Your task to perform on an android device: turn smart compose on in the gmail app Image 0: 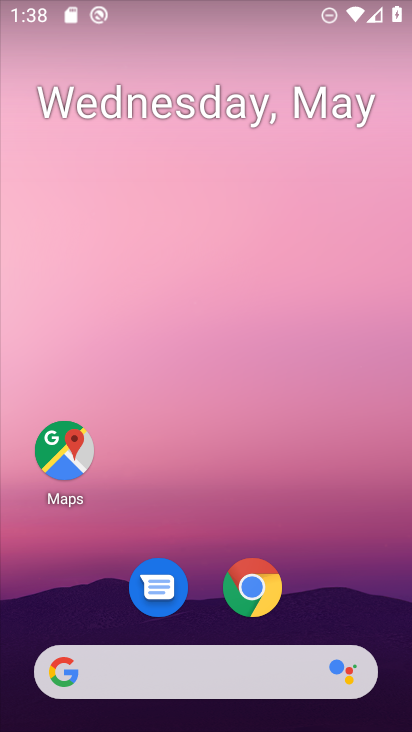
Step 0: drag from (344, 612) to (294, 348)
Your task to perform on an android device: turn smart compose on in the gmail app Image 1: 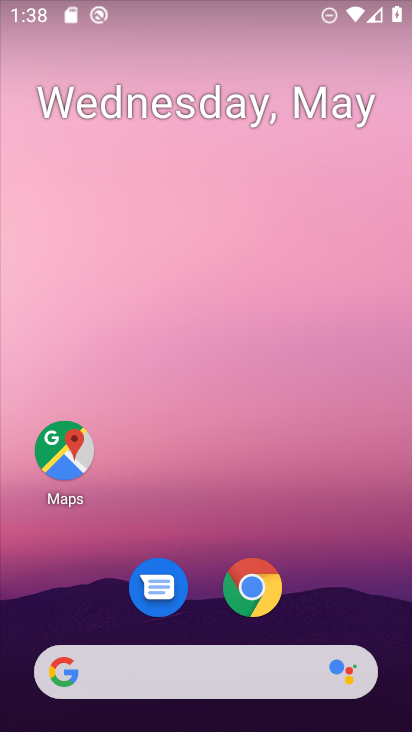
Step 1: drag from (314, 607) to (260, 316)
Your task to perform on an android device: turn smart compose on in the gmail app Image 2: 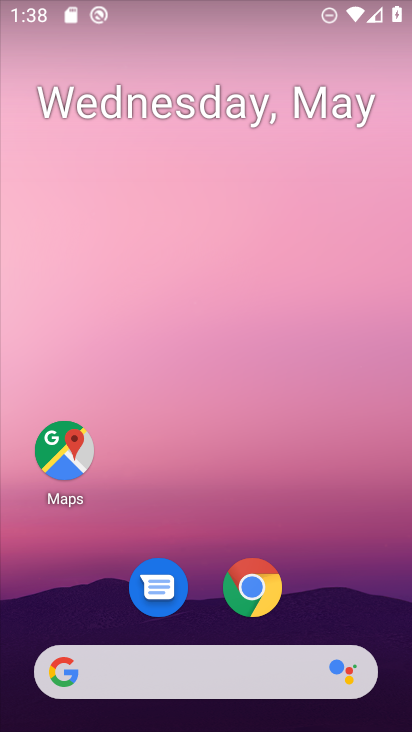
Step 2: drag from (329, 591) to (266, 233)
Your task to perform on an android device: turn smart compose on in the gmail app Image 3: 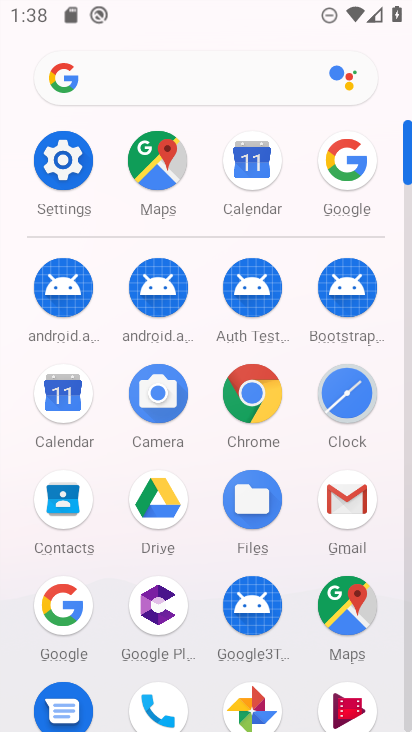
Step 3: click (343, 533)
Your task to perform on an android device: turn smart compose on in the gmail app Image 4: 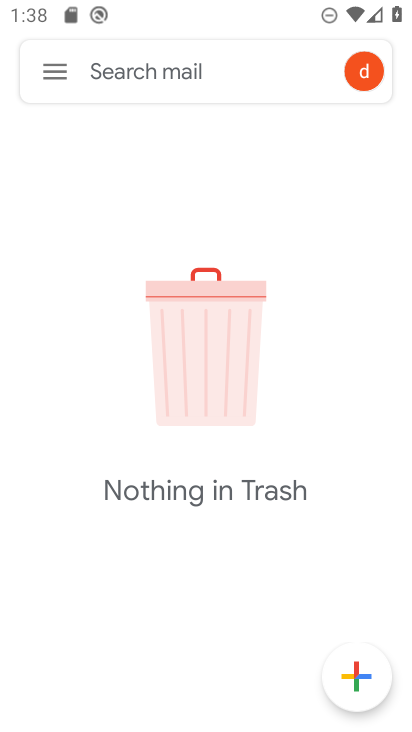
Step 4: click (49, 69)
Your task to perform on an android device: turn smart compose on in the gmail app Image 5: 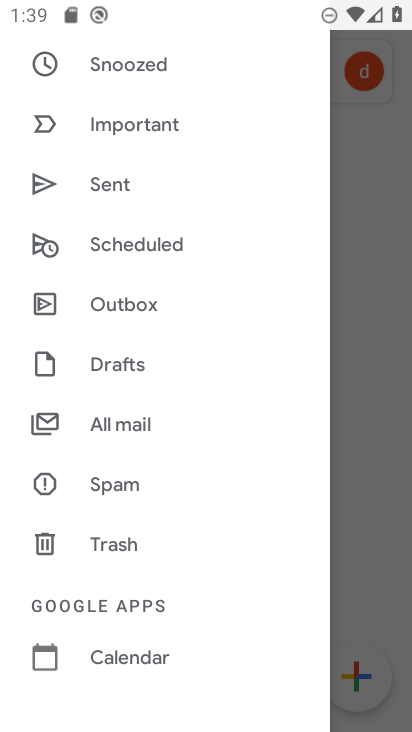
Step 5: drag from (129, 643) to (162, 372)
Your task to perform on an android device: turn smart compose on in the gmail app Image 6: 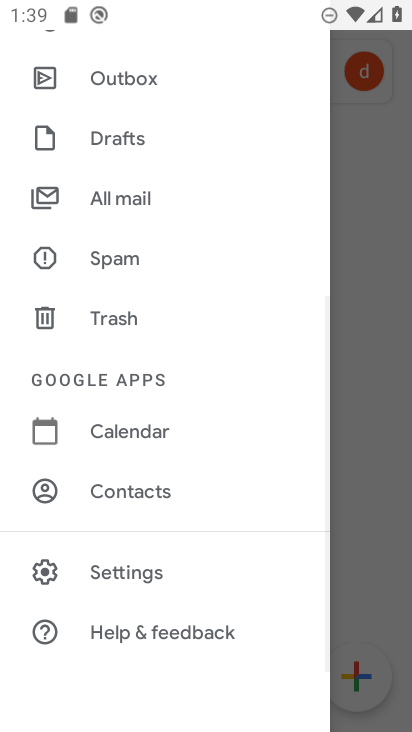
Step 6: click (119, 574)
Your task to perform on an android device: turn smart compose on in the gmail app Image 7: 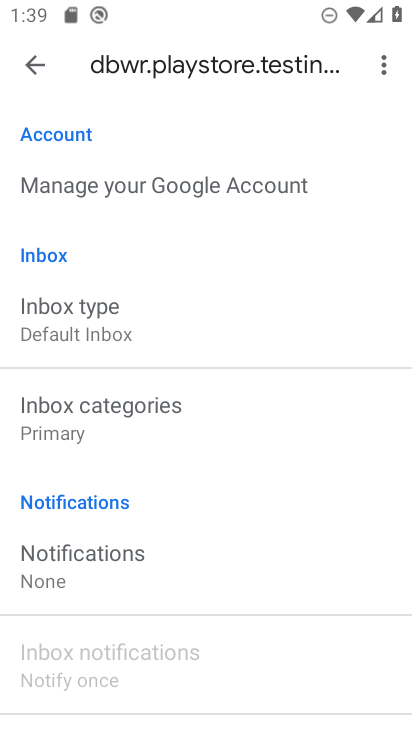
Step 7: drag from (112, 279) to (119, 239)
Your task to perform on an android device: turn smart compose on in the gmail app Image 8: 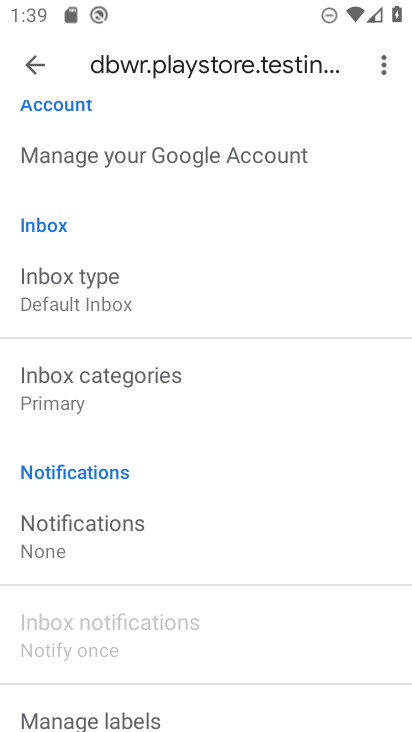
Step 8: drag from (185, 583) to (202, 308)
Your task to perform on an android device: turn smart compose on in the gmail app Image 9: 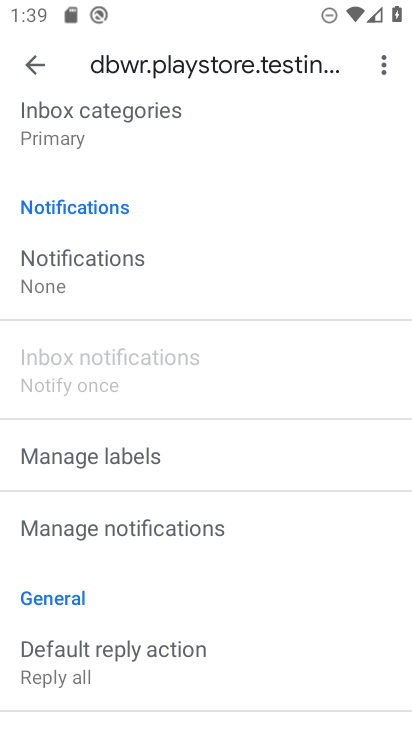
Step 9: drag from (184, 660) to (186, 295)
Your task to perform on an android device: turn smart compose on in the gmail app Image 10: 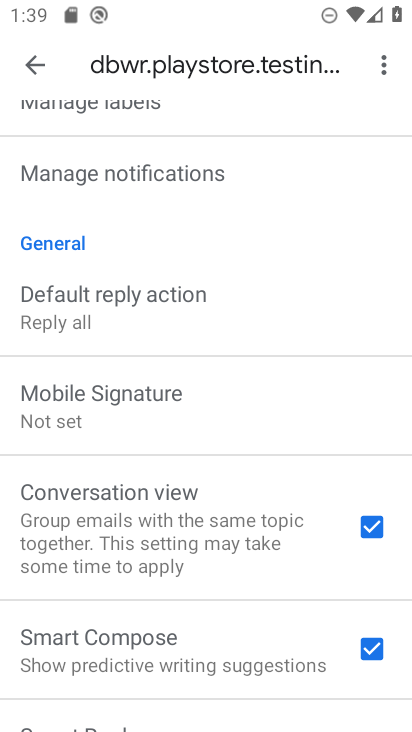
Step 10: click (181, 313)
Your task to perform on an android device: turn smart compose on in the gmail app Image 11: 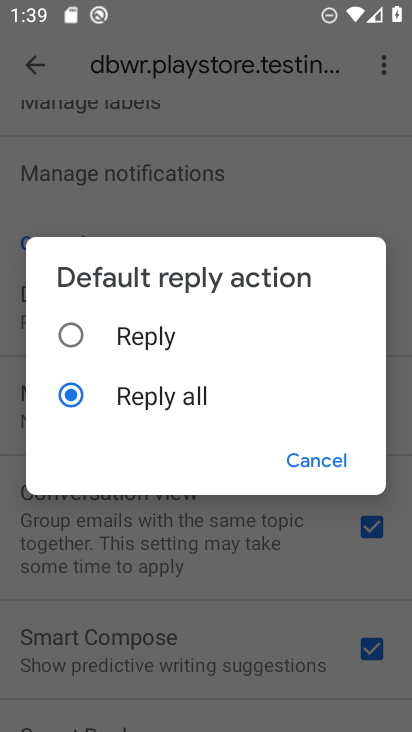
Step 11: click (303, 465)
Your task to perform on an android device: turn smart compose on in the gmail app Image 12: 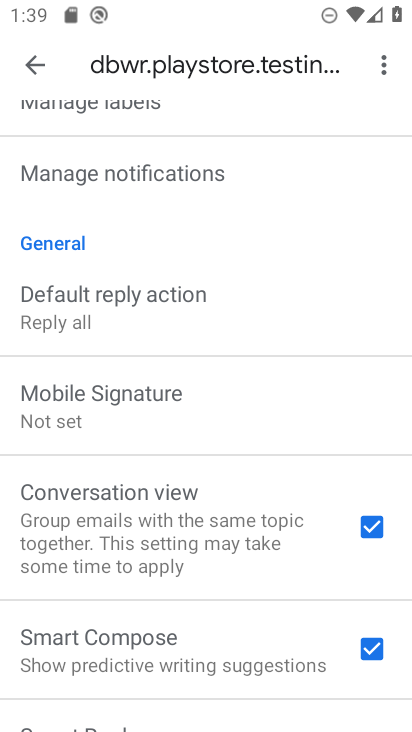
Step 12: task complete